Your task to perform on an android device: Open settings on Google Maps Image 0: 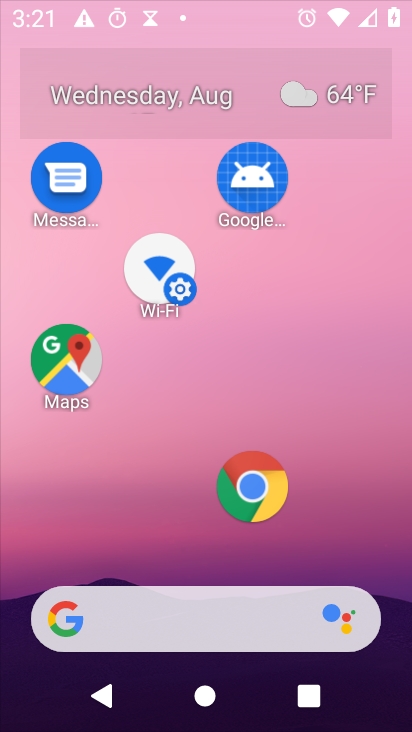
Step 0: press home button
Your task to perform on an android device: Open settings on Google Maps Image 1: 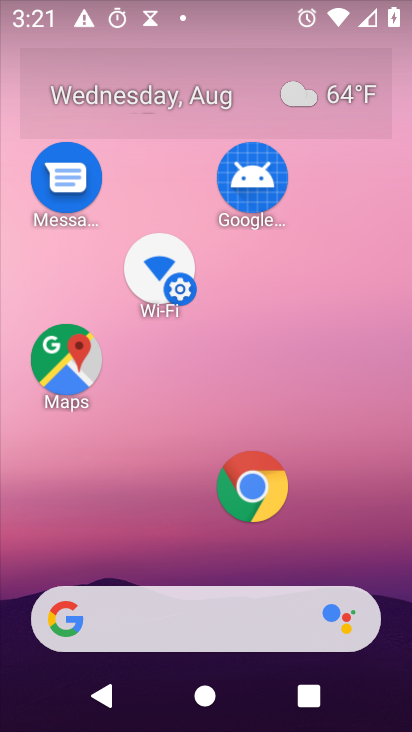
Step 1: click (66, 390)
Your task to perform on an android device: Open settings on Google Maps Image 2: 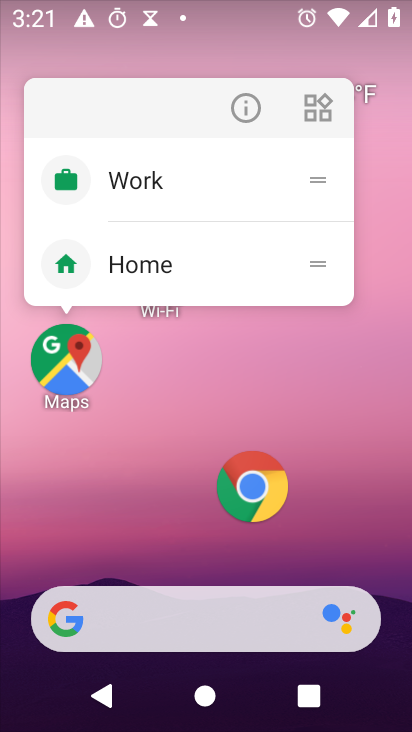
Step 2: click (66, 390)
Your task to perform on an android device: Open settings on Google Maps Image 3: 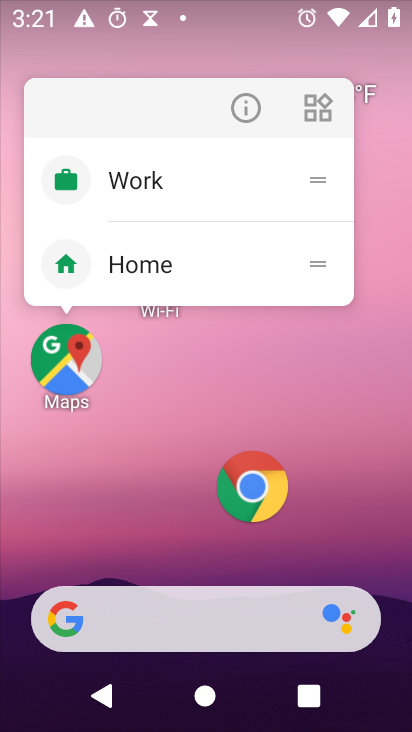
Step 3: click (66, 390)
Your task to perform on an android device: Open settings on Google Maps Image 4: 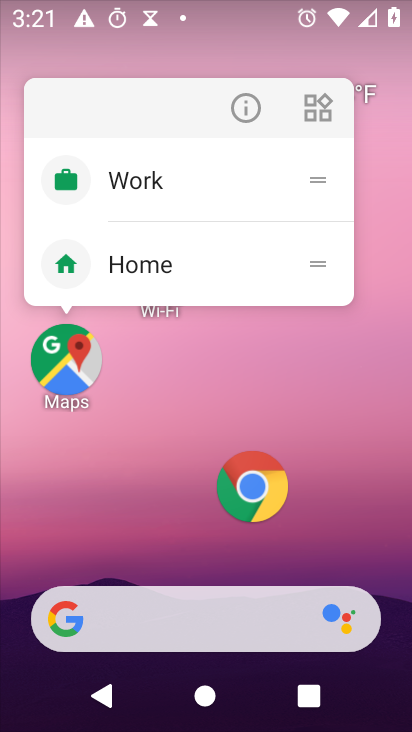
Step 4: click (66, 390)
Your task to perform on an android device: Open settings on Google Maps Image 5: 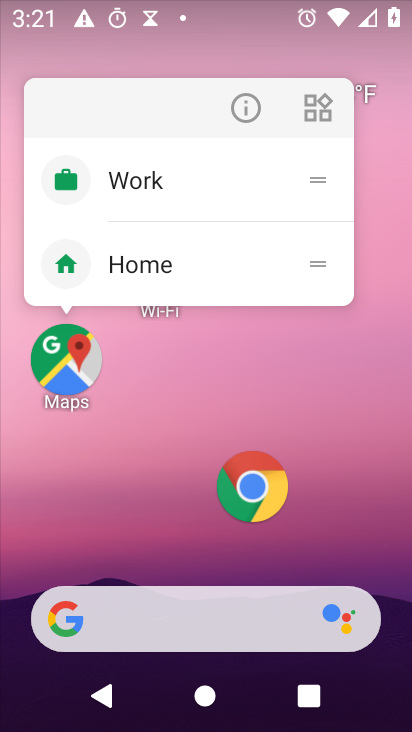
Step 5: click (71, 390)
Your task to perform on an android device: Open settings on Google Maps Image 6: 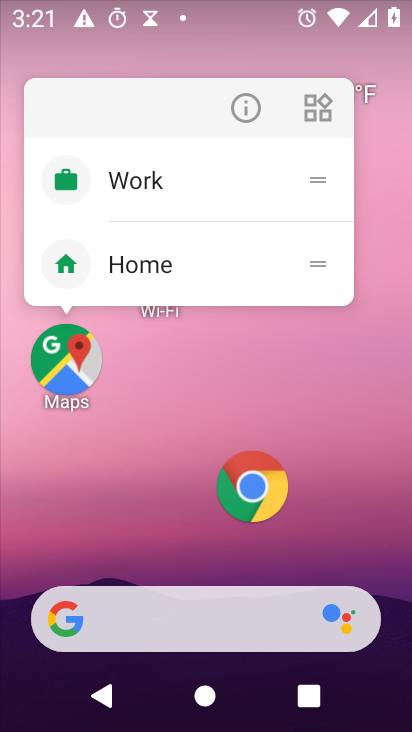
Step 6: click (70, 390)
Your task to perform on an android device: Open settings on Google Maps Image 7: 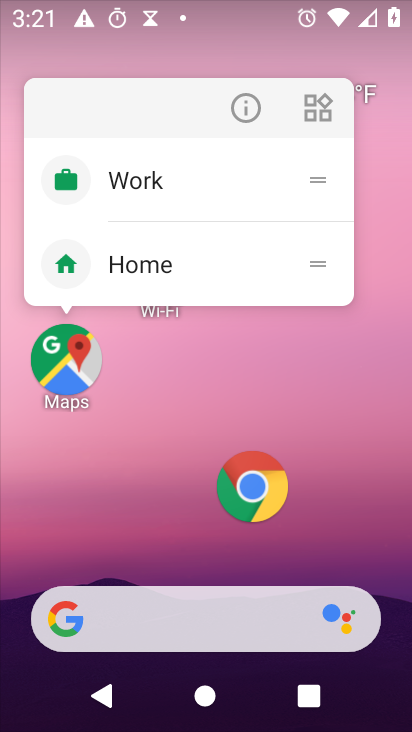
Step 7: drag from (70, 390) to (87, 423)
Your task to perform on an android device: Open settings on Google Maps Image 8: 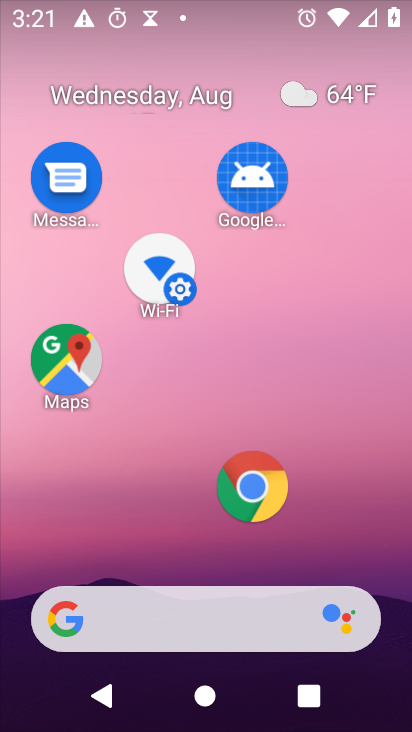
Step 8: click (55, 365)
Your task to perform on an android device: Open settings on Google Maps Image 9: 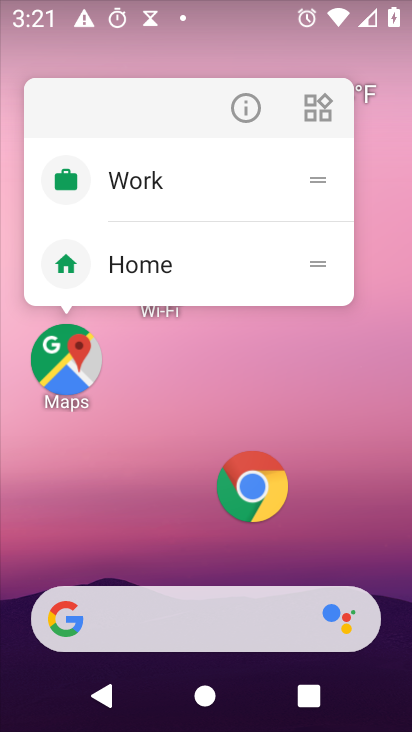
Step 9: click (55, 365)
Your task to perform on an android device: Open settings on Google Maps Image 10: 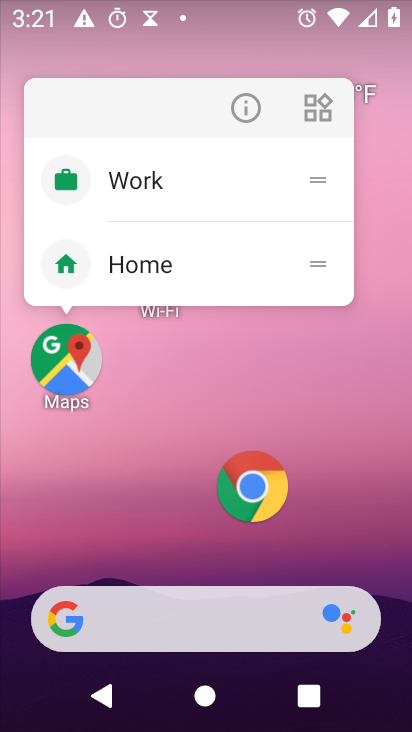
Step 10: click (55, 368)
Your task to perform on an android device: Open settings on Google Maps Image 11: 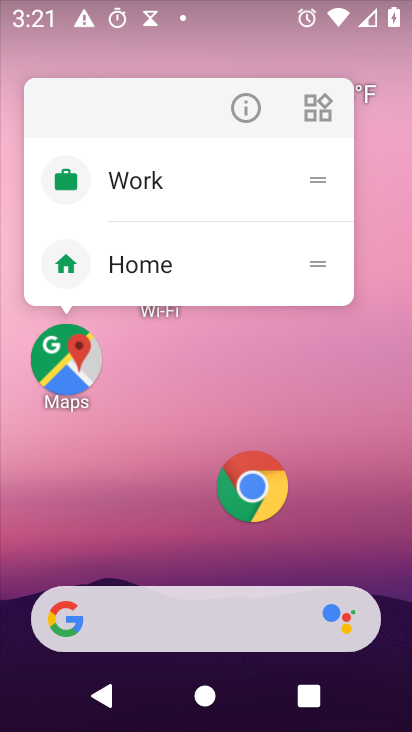
Step 11: click (55, 368)
Your task to perform on an android device: Open settings on Google Maps Image 12: 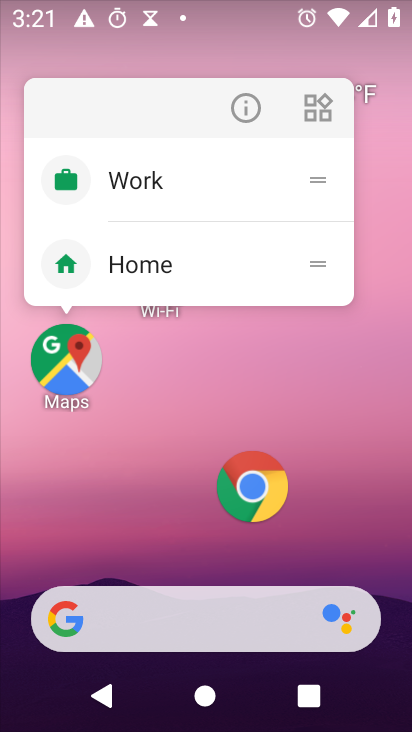
Step 12: click (60, 356)
Your task to perform on an android device: Open settings on Google Maps Image 13: 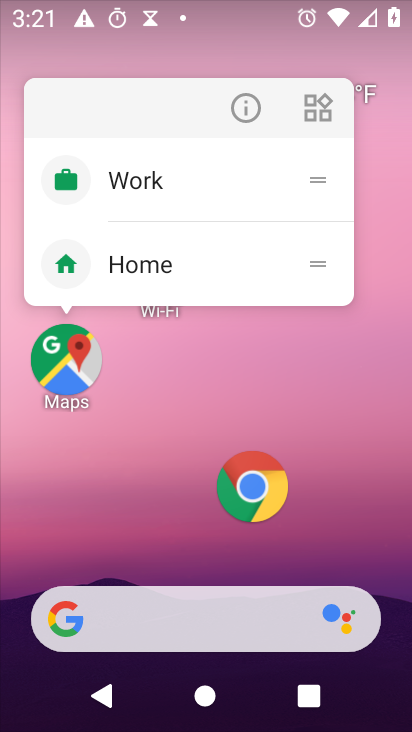
Step 13: click (64, 364)
Your task to perform on an android device: Open settings on Google Maps Image 14: 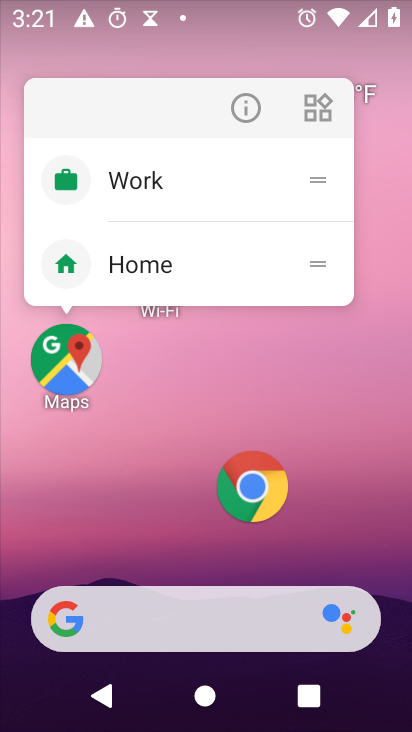
Step 14: click (43, 377)
Your task to perform on an android device: Open settings on Google Maps Image 15: 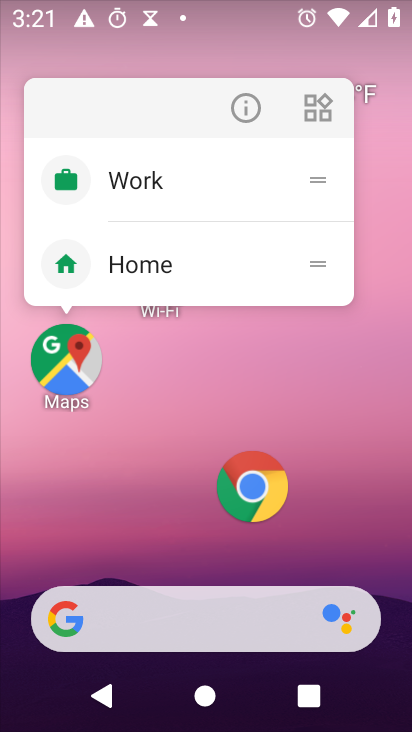
Step 15: click (44, 377)
Your task to perform on an android device: Open settings on Google Maps Image 16: 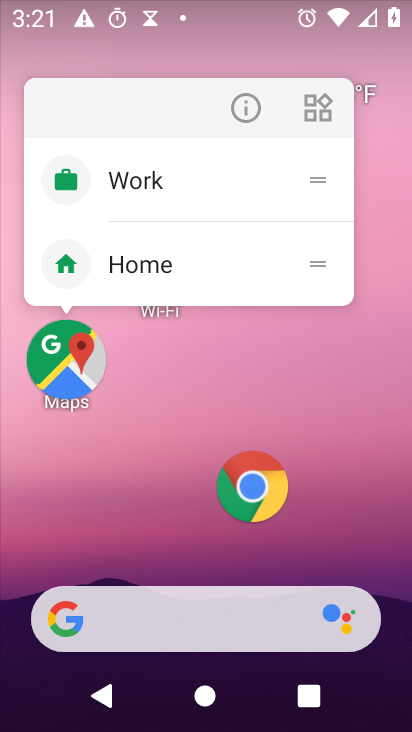
Step 16: click (44, 377)
Your task to perform on an android device: Open settings on Google Maps Image 17: 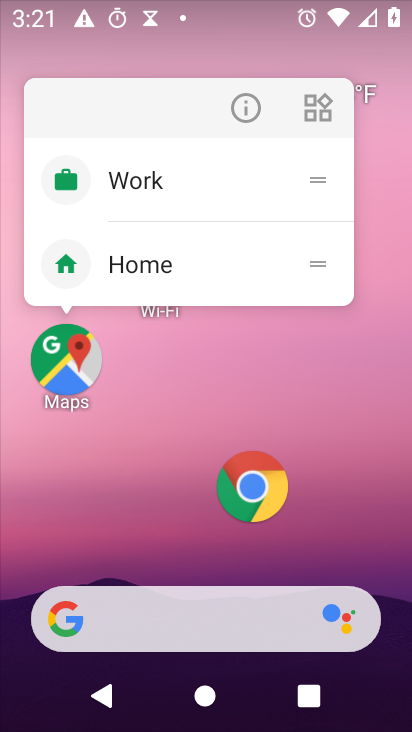
Step 17: click (44, 377)
Your task to perform on an android device: Open settings on Google Maps Image 18: 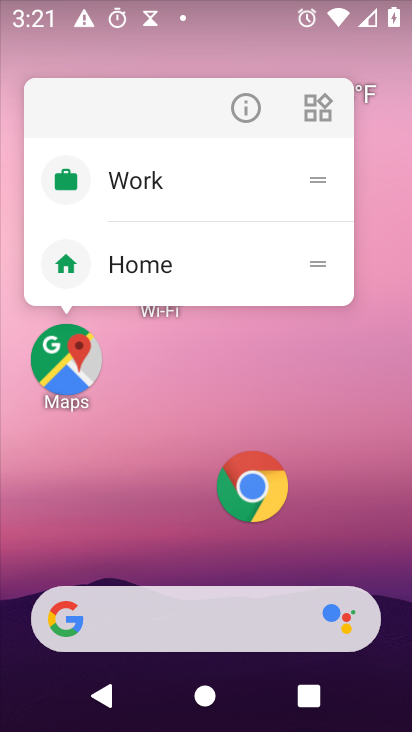
Step 18: click (44, 377)
Your task to perform on an android device: Open settings on Google Maps Image 19: 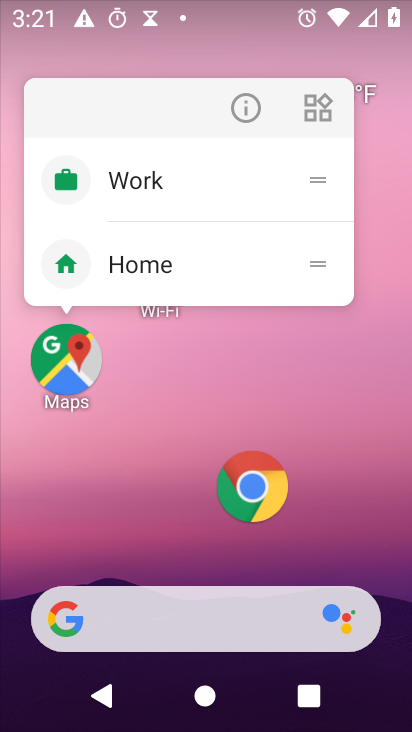
Step 19: click (44, 377)
Your task to perform on an android device: Open settings on Google Maps Image 20: 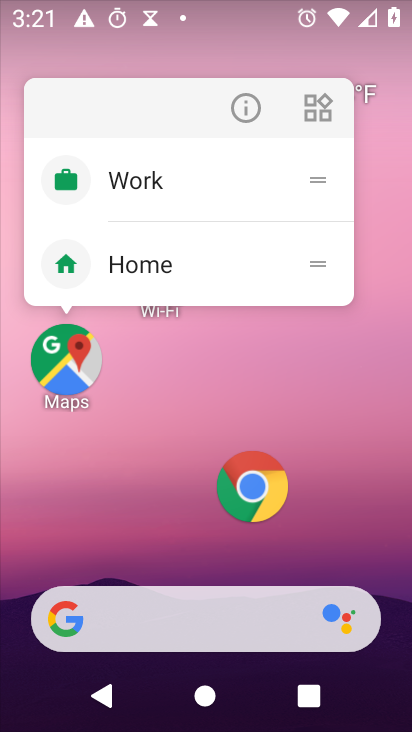
Step 20: click (44, 377)
Your task to perform on an android device: Open settings on Google Maps Image 21: 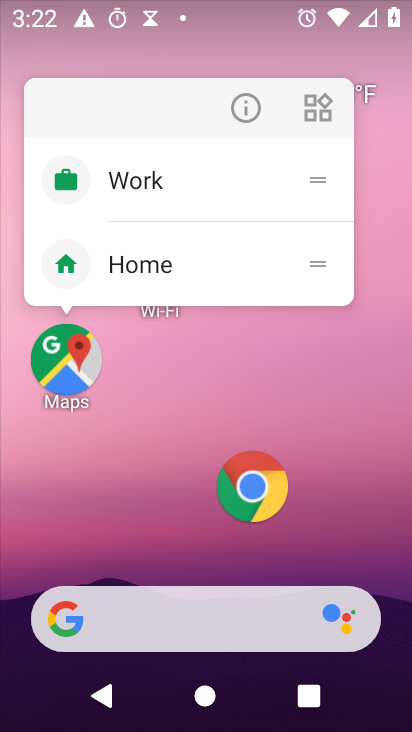
Step 21: click (44, 354)
Your task to perform on an android device: Open settings on Google Maps Image 22: 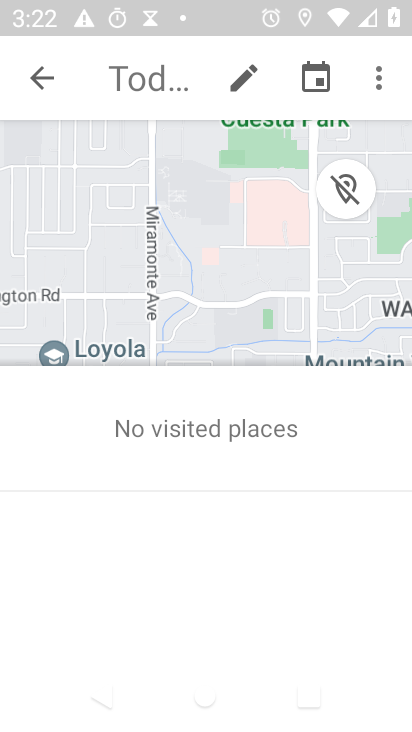
Step 22: press back button
Your task to perform on an android device: Open settings on Google Maps Image 23: 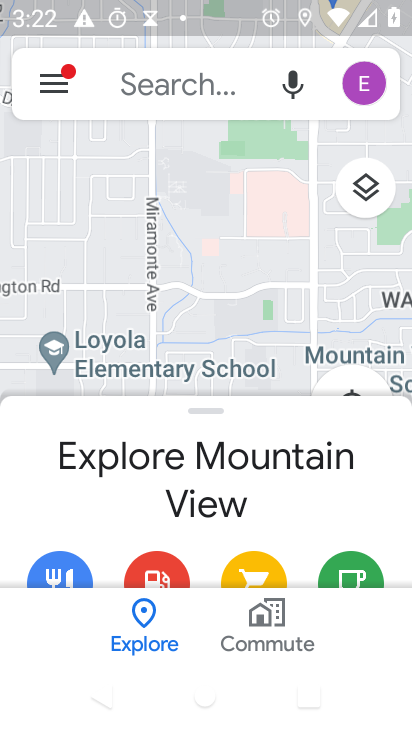
Step 23: click (50, 89)
Your task to perform on an android device: Open settings on Google Maps Image 24: 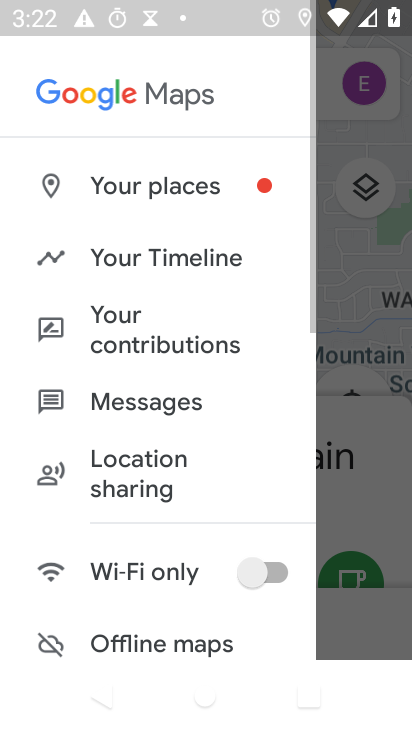
Step 24: drag from (263, 421) to (247, 2)
Your task to perform on an android device: Open settings on Google Maps Image 25: 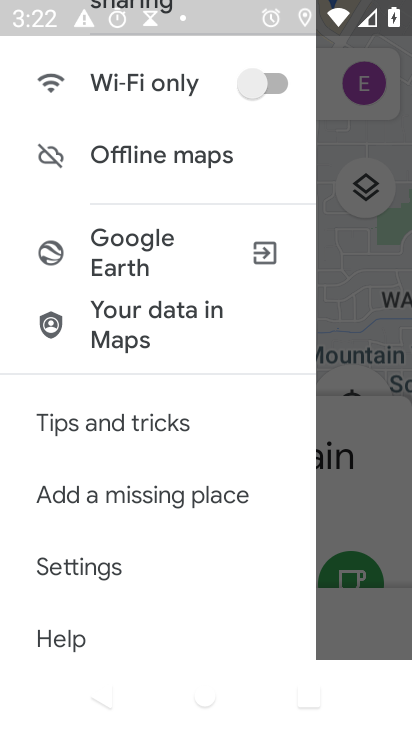
Step 25: click (86, 572)
Your task to perform on an android device: Open settings on Google Maps Image 26: 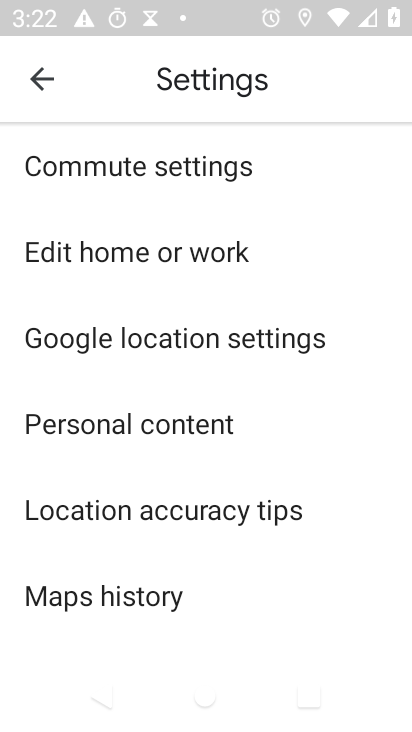
Step 26: task complete